Your task to perform on an android device: Clear all items from cart on target. Add usb-c to usb-b to the cart on target, then select checkout. Image 0: 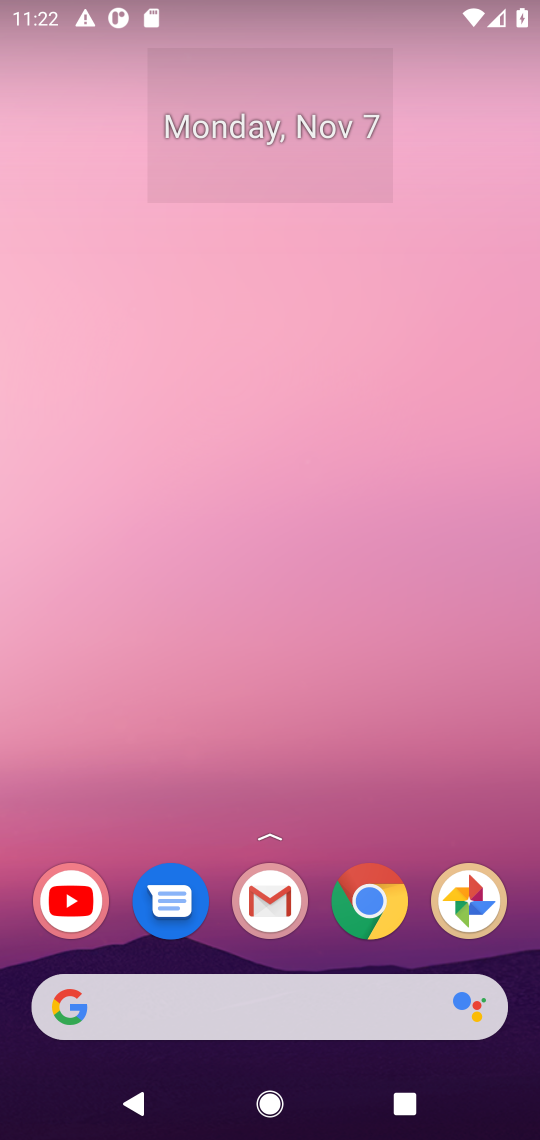
Step 0: click (365, 913)
Your task to perform on an android device: Clear all items from cart on target. Add usb-c to usb-b to the cart on target, then select checkout. Image 1: 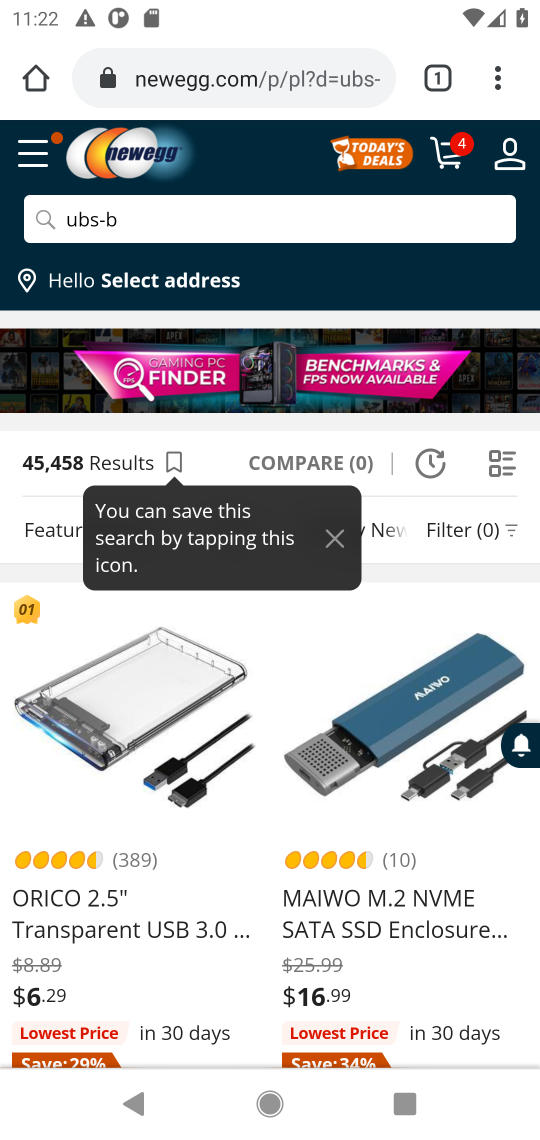
Step 1: click (264, 90)
Your task to perform on an android device: Clear all items from cart on target. Add usb-c to usb-b to the cart on target, then select checkout. Image 2: 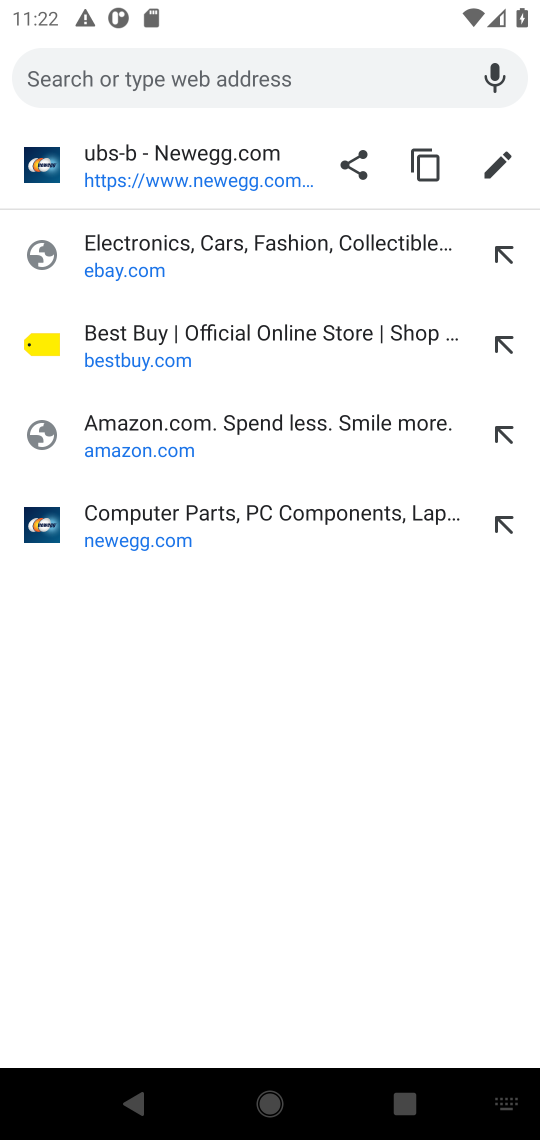
Step 2: type "target"
Your task to perform on an android device: Clear all items from cart on target. Add usb-c to usb-b to the cart on target, then select checkout. Image 3: 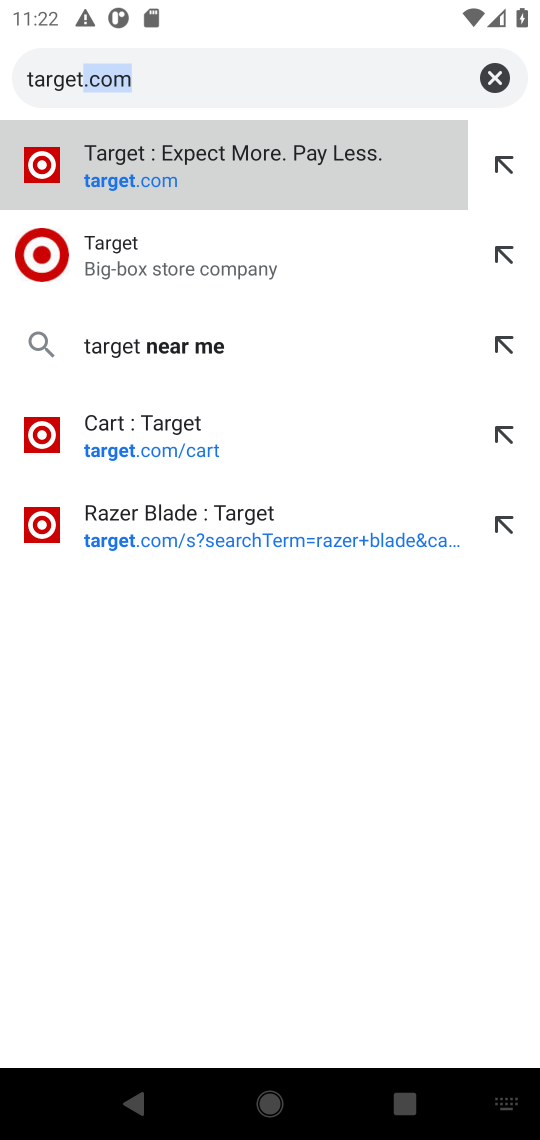
Step 3: click (271, 185)
Your task to perform on an android device: Clear all items from cart on target. Add usb-c to usb-b to the cart on target, then select checkout. Image 4: 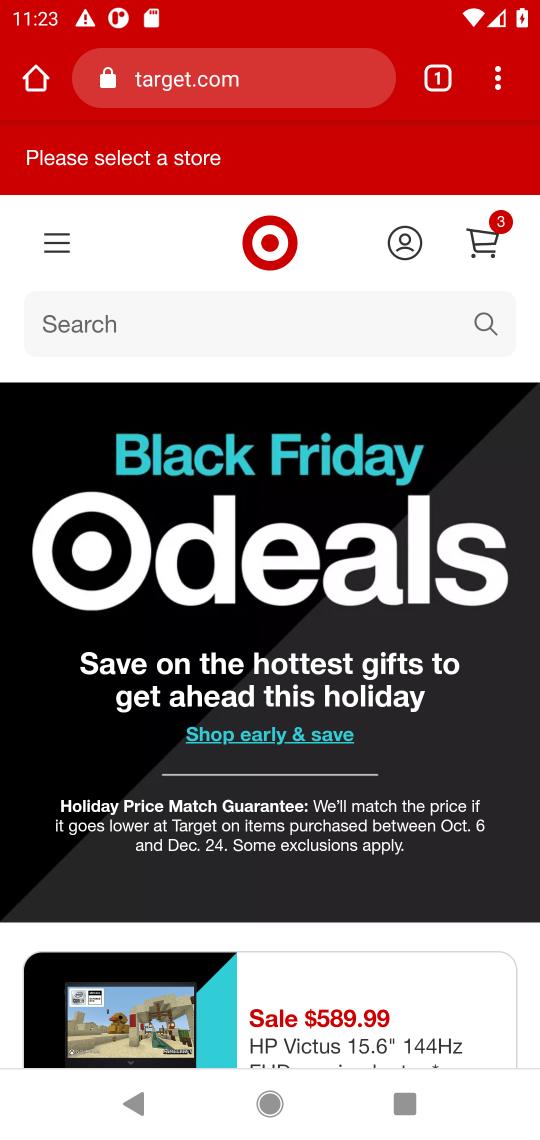
Step 4: click (252, 318)
Your task to perform on an android device: Clear all items from cart on target. Add usb-c to usb-b to the cart on target, then select checkout. Image 5: 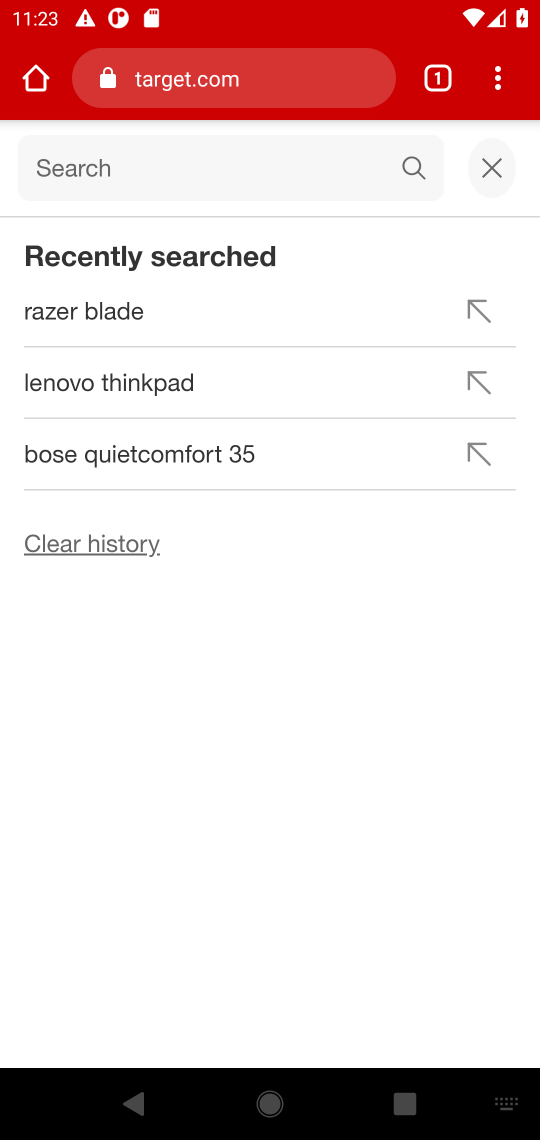
Step 5: type "usb-c to usb-b"
Your task to perform on an android device: Clear all items from cart on target. Add usb-c to usb-b to the cart on target, then select checkout. Image 6: 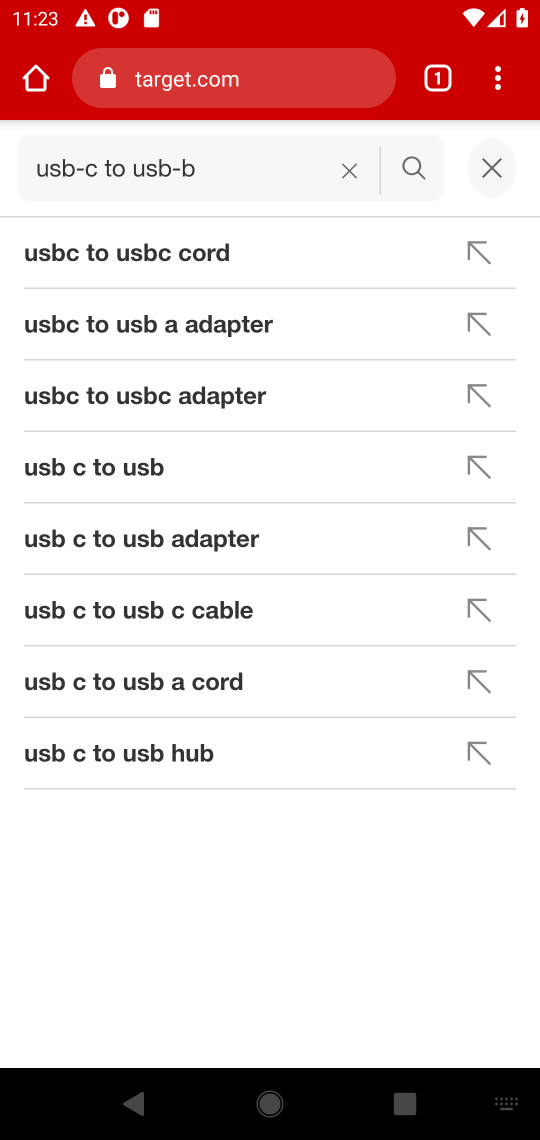
Step 6: press enter
Your task to perform on an android device: Clear all items from cart on target. Add usb-c to usb-b to the cart on target, then select checkout. Image 7: 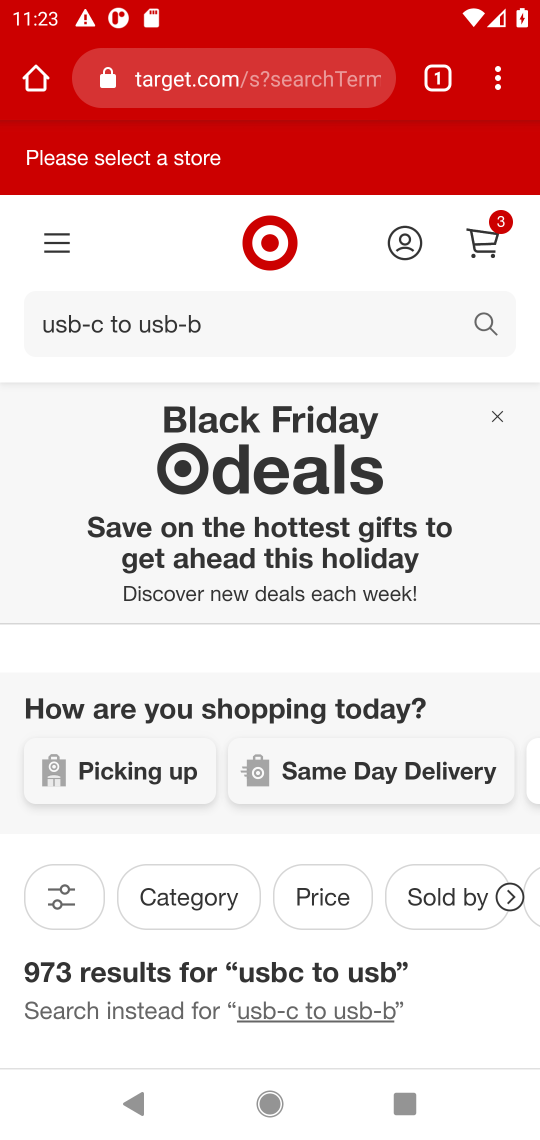
Step 7: drag from (388, 774) to (283, 289)
Your task to perform on an android device: Clear all items from cart on target. Add usb-c to usb-b to the cart on target, then select checkout. Image 8: 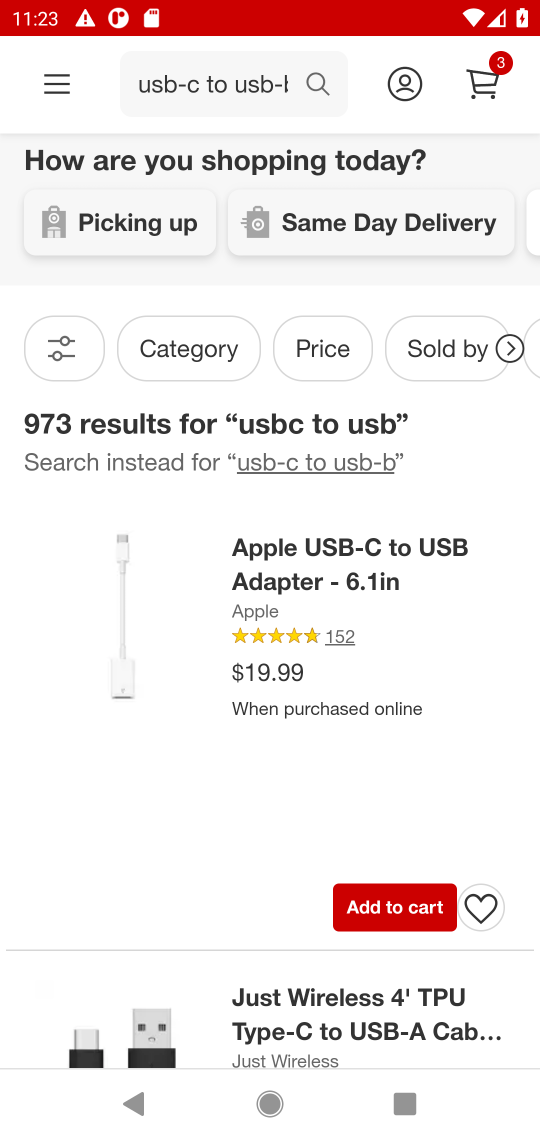
Step 8: click (397, 906)
Your task to perform on an android device: Clear all items from cart on target. Add usb-c to usb-b to the cart on target, then select checkout. Image 9: 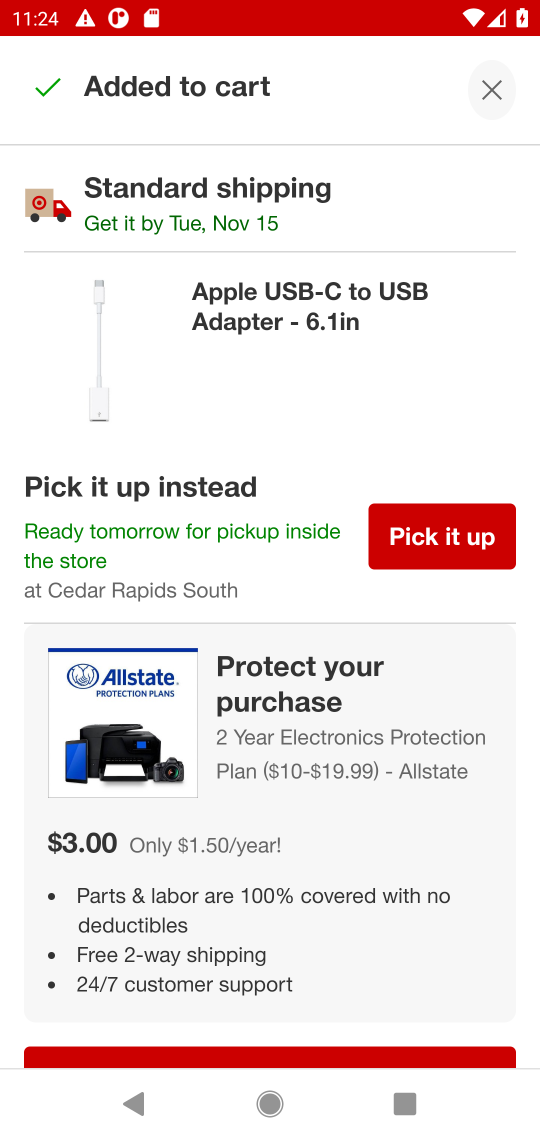
Step 9: task complete